Your task to perform on an android device: Open Google Maps Image 0: 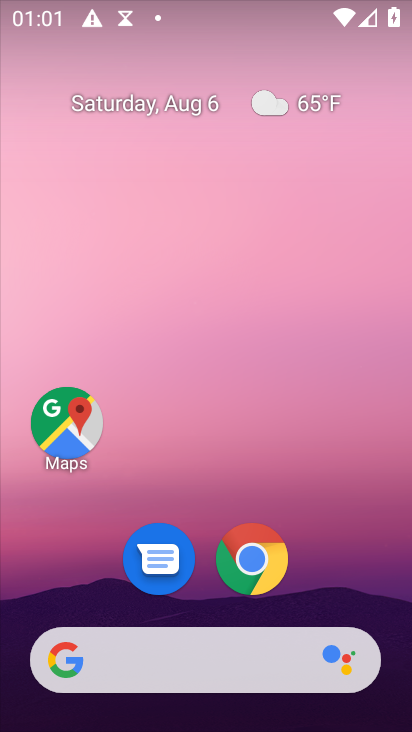
Step 0: click (84, 448)
Your task to perform on an android device: Open Google Maps Image 1: 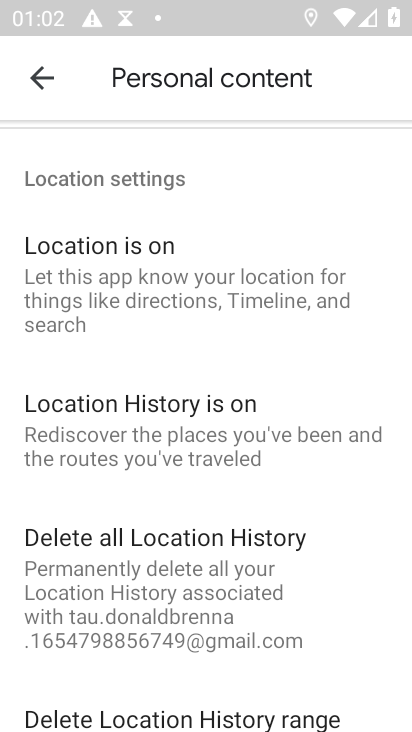
Step 1: click (44, 77)
Your task to perform on an android device: Open Google Maps Image 2: 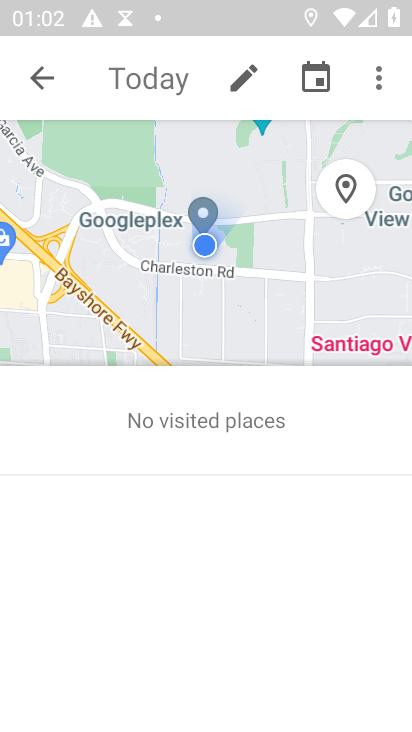
Step 2: task complete